Your task to perform on an android device: Open network settings Image 0: 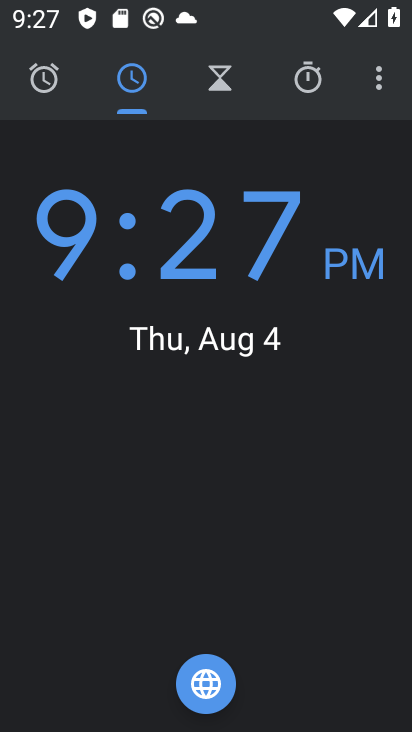
Step 0: press home button
Your task to perform on an android device: Open network settings Image 1: 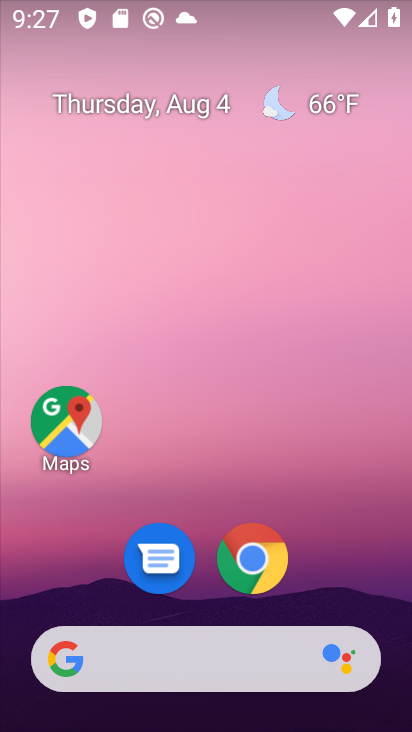
Step 1: drag from (316, 568) to (251, 175)
Your task to perform on an android device: Open network settings Image 2: 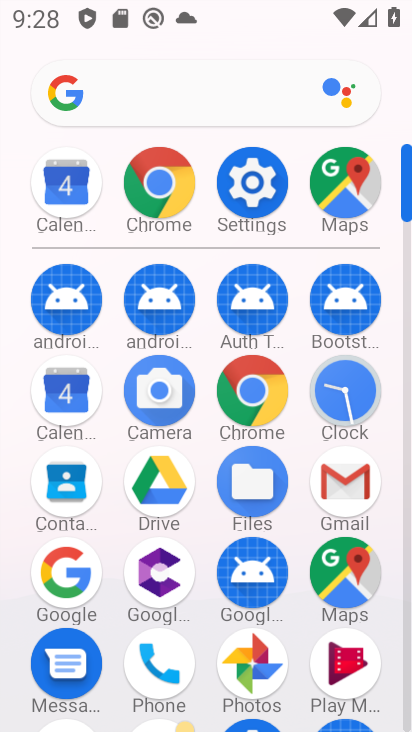
Step 2: drag from (204, 520) to (200, 188)
Your task to perform on an android device: Open network settings Image 3: 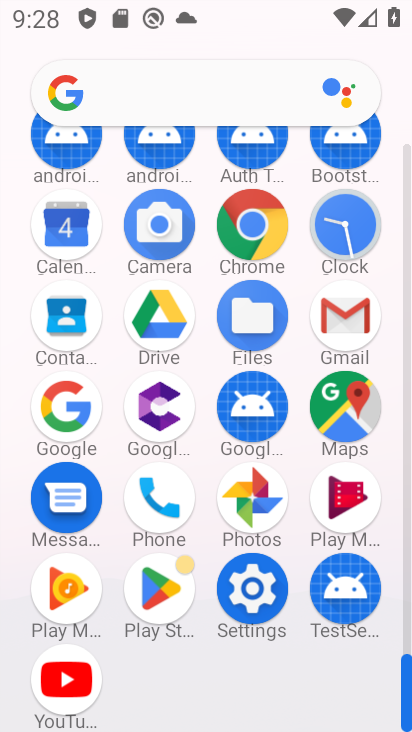
Step 3: click (241, 583)
Your task to perform on an android device: Open network settings Image 4: 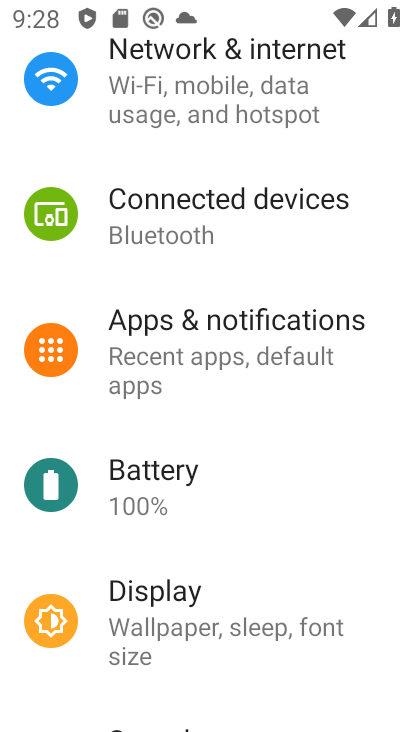
Step 4: click (159, 89)
Your task to perform on an android device: Open network settings Image 5: 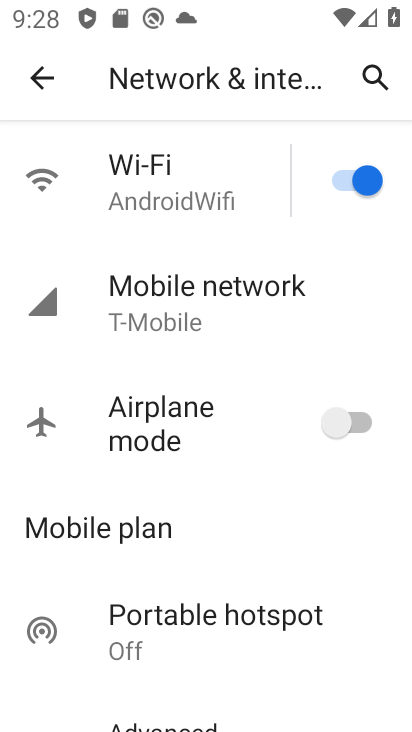
Step 5: task complete